Your task to perform on an android device: Go to Yahoo.com Image 0: 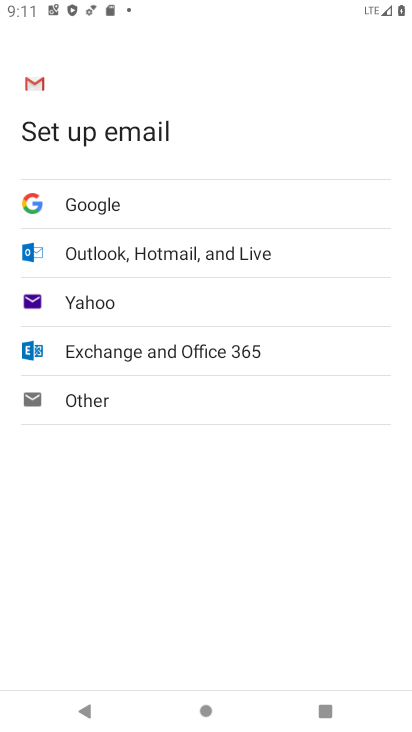
Step 0: press home button
Your task to perform on an android device: Go to Yahoo.com Image 1: 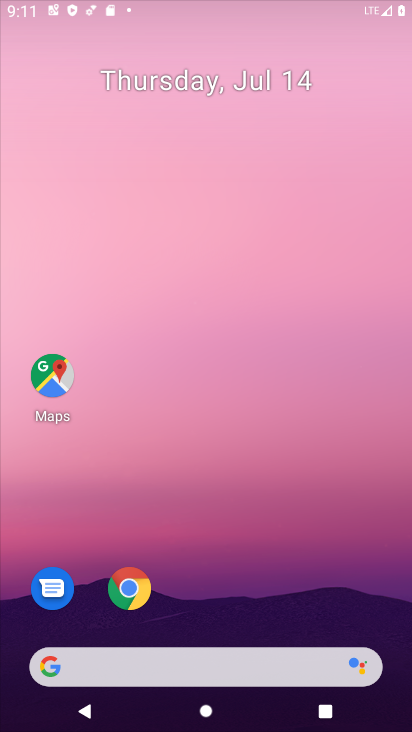
Step 1: drag from (380, 639) to (234, 53)
Your task to perform on an android device: Go to Yahoo.com Image 2: 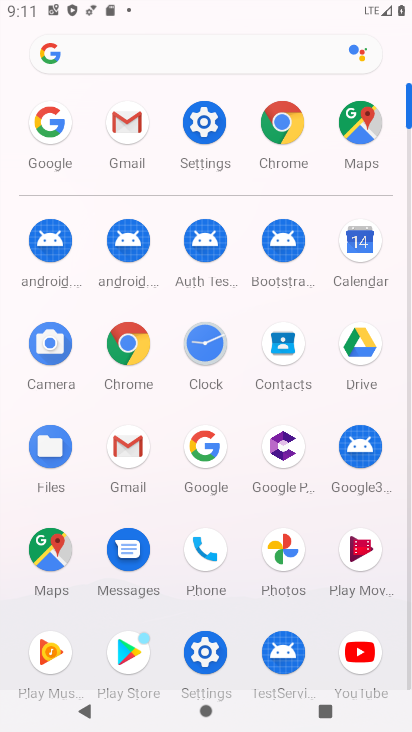
Step 2: click (205, 457)
Your task to perform on an android device: Go to Yahoo.com Image 3: 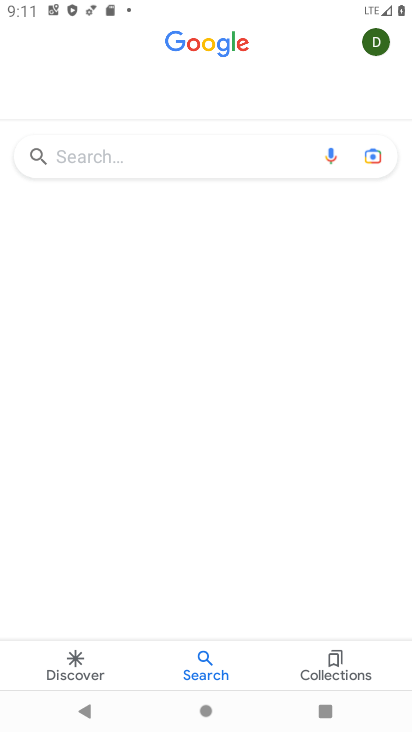
Step 3: click (81, 153)
Your task to perform on an android device: Go to Yahoo.com Image 4: 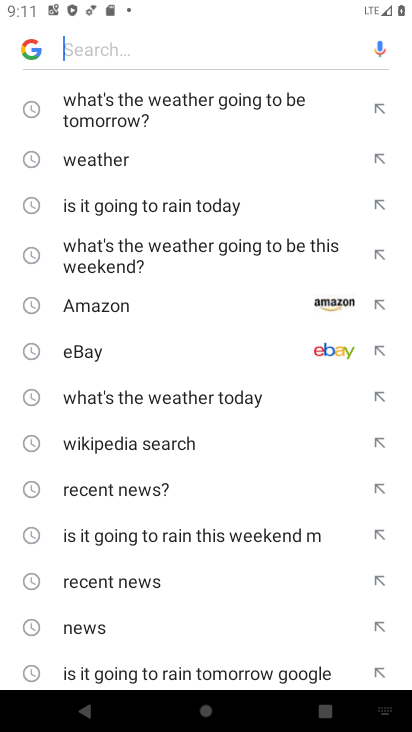
Step 4: type "Yahoo.com"
Your task to perform on an android device: Go to Yahoo.com Image 5: 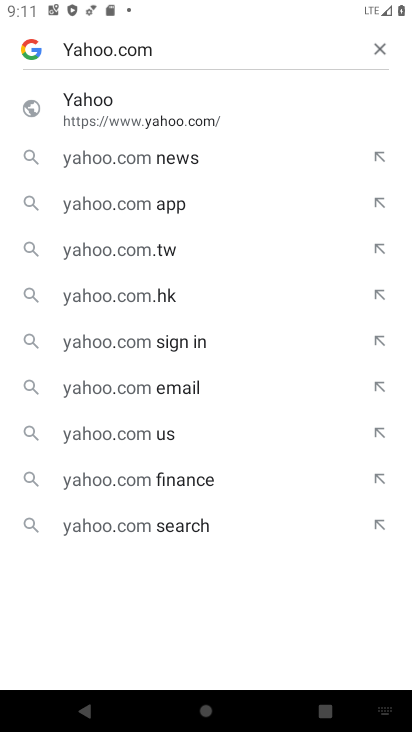
Step 5: click (161, 121)
Your task to perform on an android device: Go to Yahoo.com Image 6: 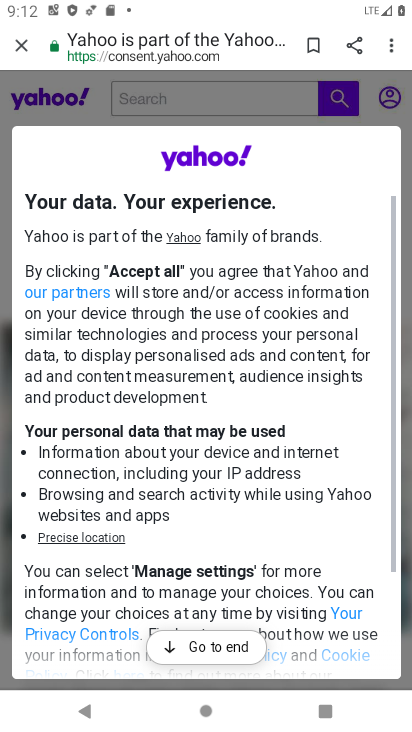
Step 6: task complete